Your task to perform on an android device: Go to Reddit.com Image 0: 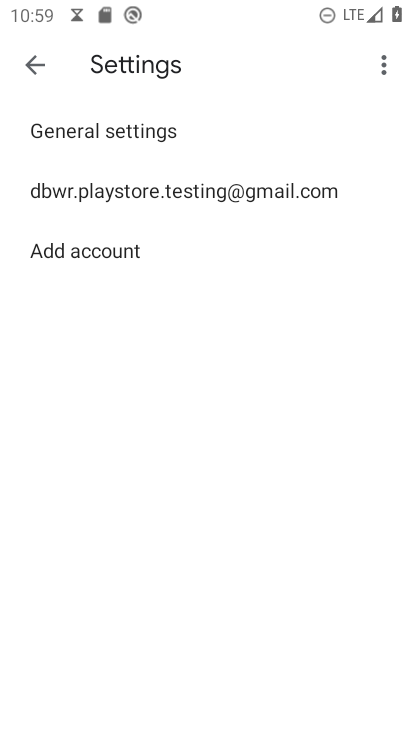
Step 0: press home button
Your task to perform on an android device: Go to Reddit.com Image 1: 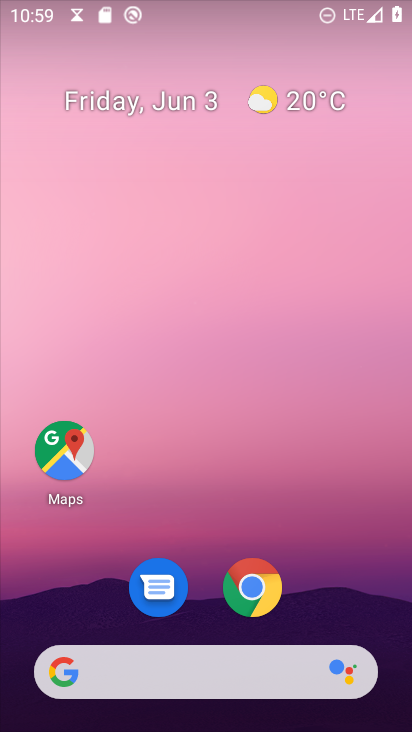
Step 1: click (255, 593)
Your task to perform on an android device: Go to Reddit.com Image 2: 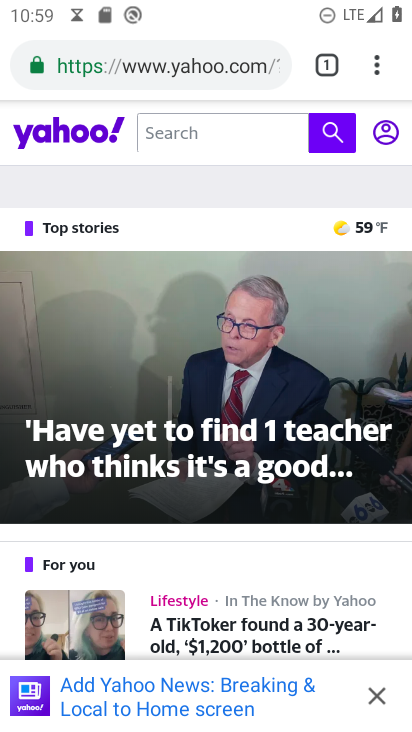
Step 2: click (144, 64)
Your task to perform on an android device: Go to Reddit.com Image 3: 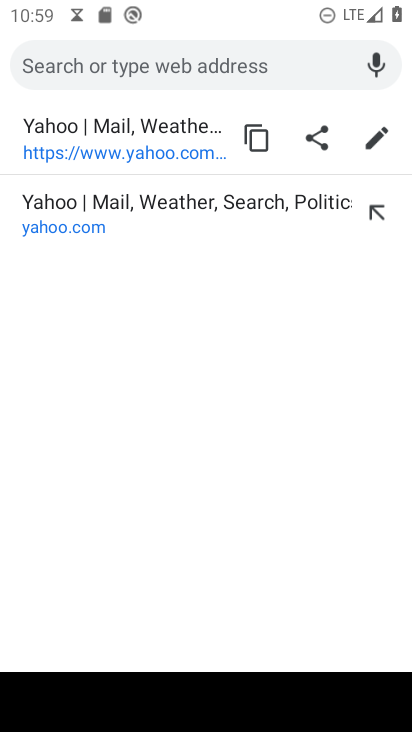
Step 3: type "Reddit.com"
Your task to perform on an android device: Go to Reddit.com Image 4: 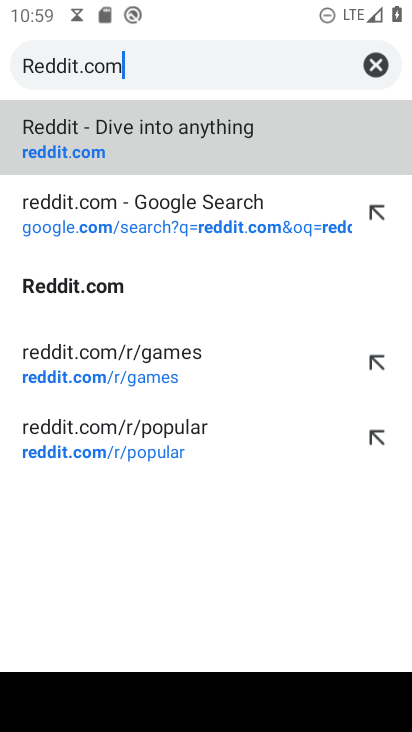
Step 4: click (127, 145)
Your task to perform on an android device: Go to Reddit.com Image 5: 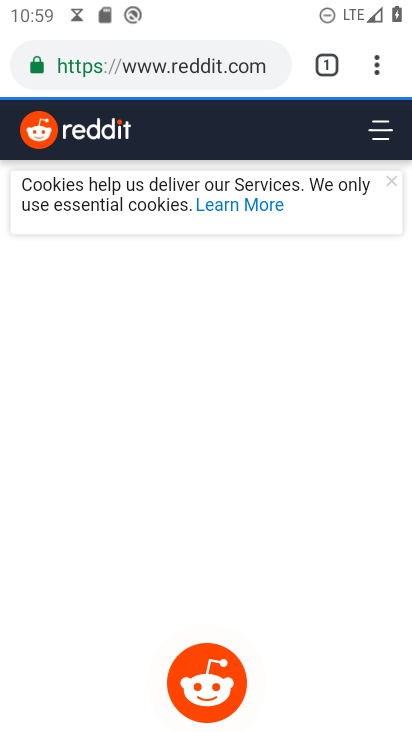
Step 5: task complete